Your task to perform on an android device: Open settings on Google Maps Image 0: 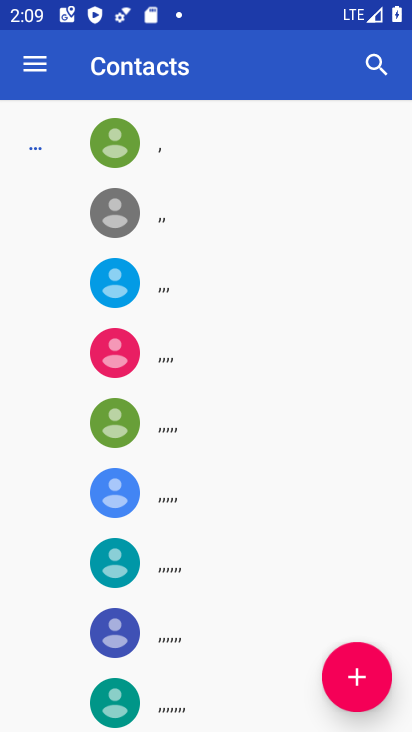
Step 0: press home button
Your task to perform on an android device: Open settings on Google Maps Image 1: 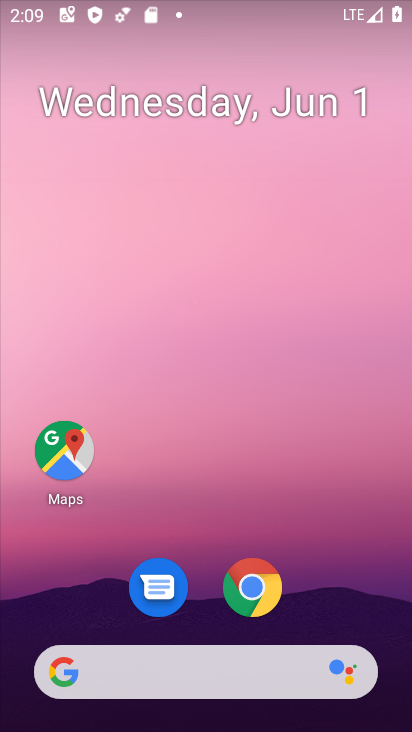
Step 1: drag from (221, 648) to (203, 59)
Your task to perform on an android device: Open settings on Google Maps Image 2: 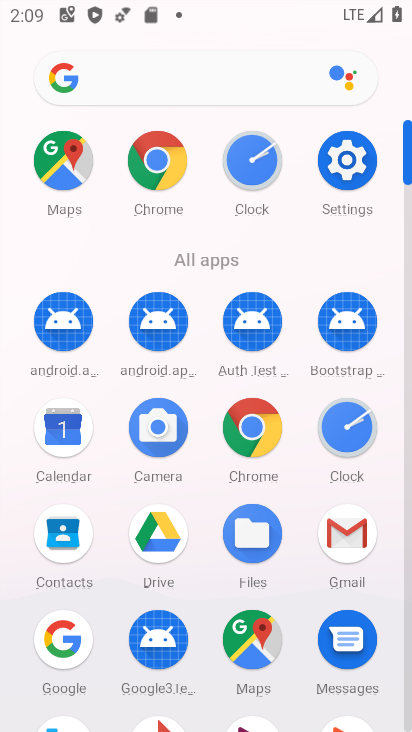
Step 2: click (262, 629)
Your task to perform on an android device: Open settings on Google Maps Image 3: 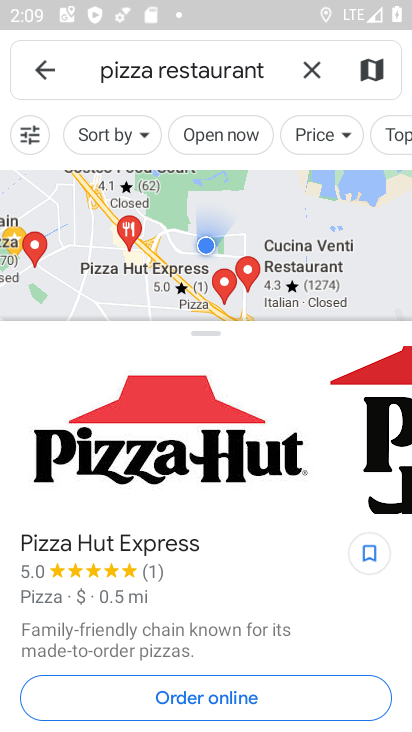
Step 3: click (41, 76)
Your task to perform on an android device: Open settings on Google Maps Image 4: 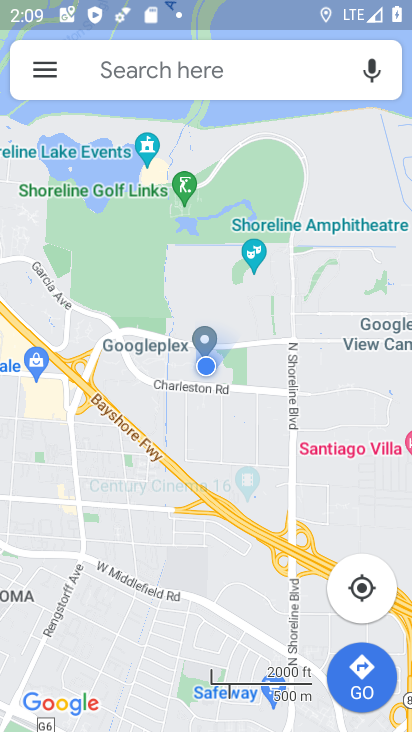
Step 4: click (43, 79)
Your task to perform on an android device: Open settings on Google Maps Image 5: 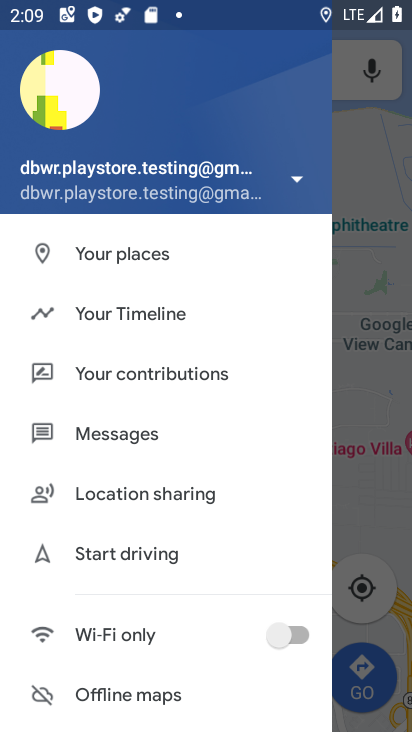
Step 5: drag from (118, 650) to (87, 164)
Your task to perform on an android device: Open settings on Google Maps Image 6: 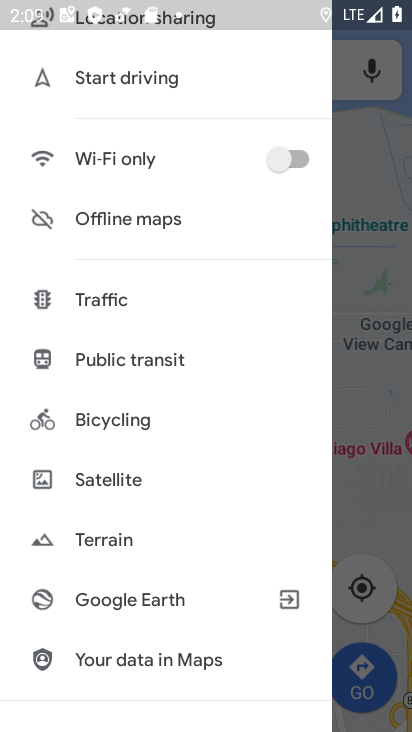
Step 6: drag from (133, 595) to (110, 137)
Your task to perform on an android device: Open settings on Google Maps Image 7: 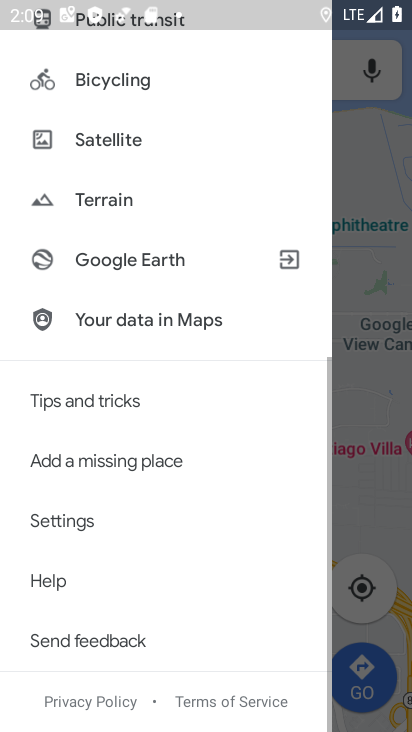
Step 7: click (89, 530)
Your task to perform on an android device: Open settings on Google Maps Image 8: 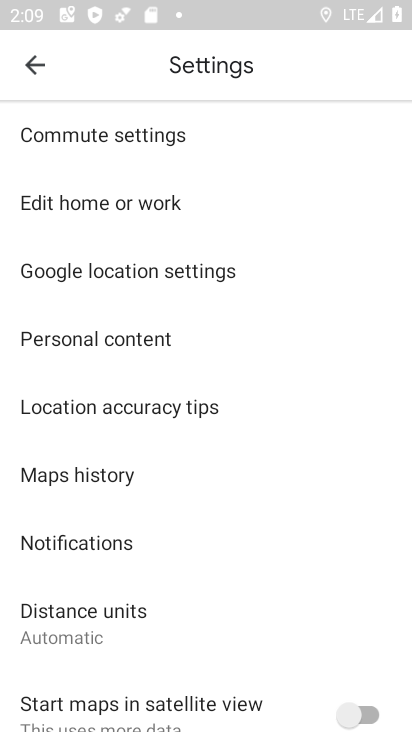
Step 8: task complete